Your task to perform on an android device: turn off translation in the chrome app Image 0: 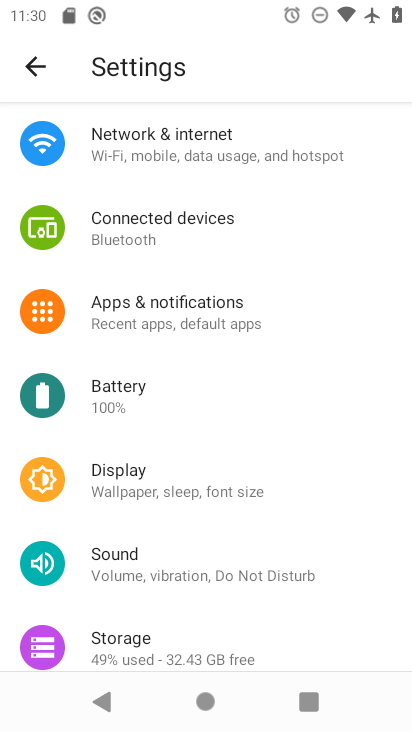
Step 0: press home button
Your task to perform on an android device: turn off translation in the chrome app Image 1: 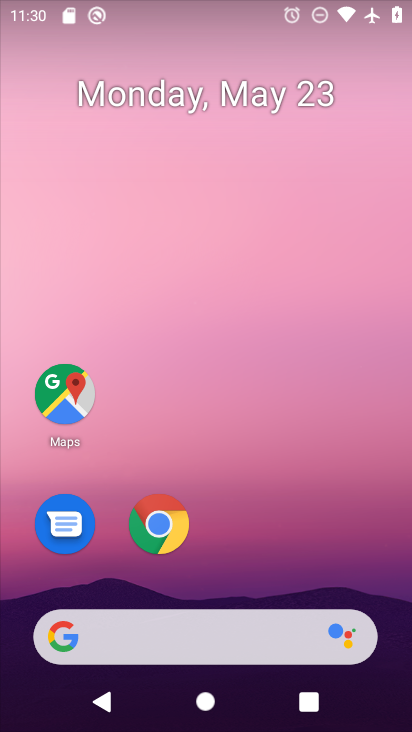
Step 1: click (174, 528)
Your task to perform on an android device: turn off translation in the chrome app Image 2: 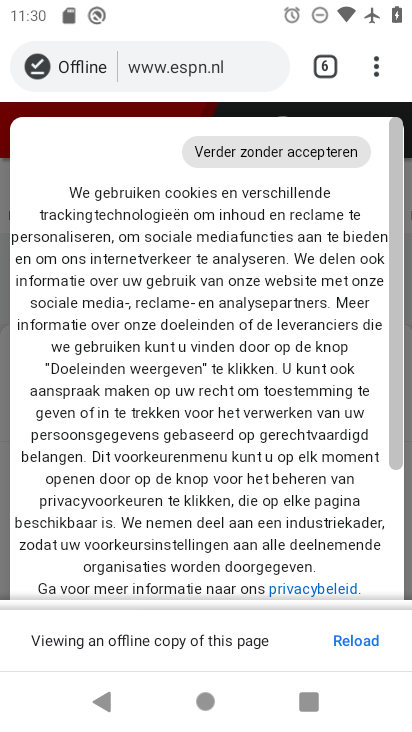
Step 2: drag from (376, 76) to (182, 521)
Your task to perform on an android device: turn off translation in the chrome app Image 3: 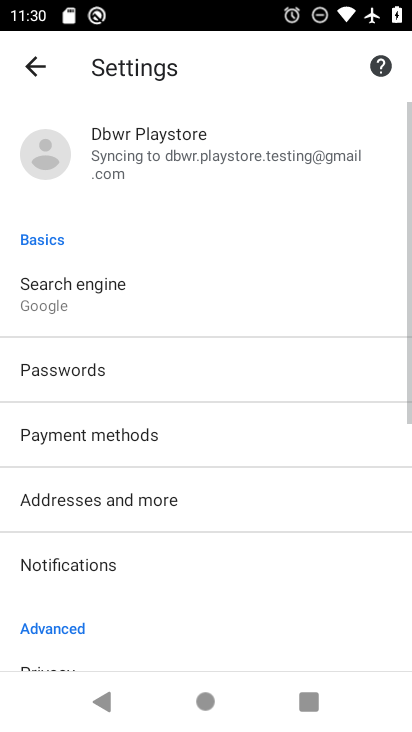
Step 3: click (189, 578)
Your task to perform on an android device: turn off translation in the chrome app Image 4: 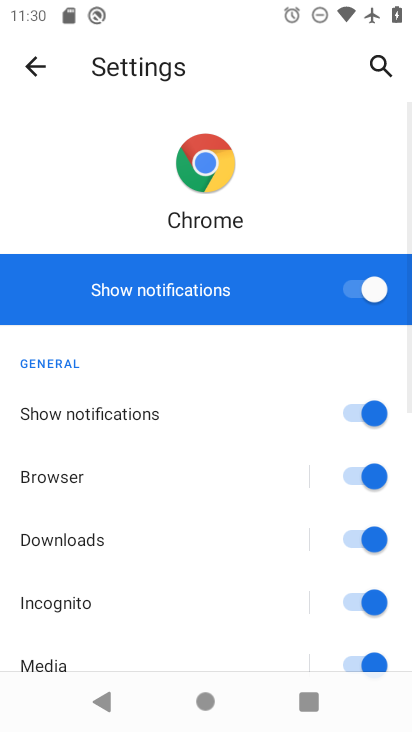
Step 4: click (20, 74)
Your task to perform on an android device: turn off translation in the chrome app Image 5: 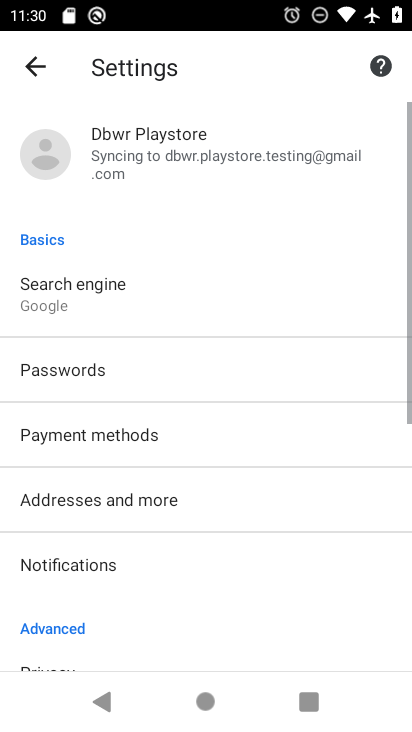
Step 5: drag from (239, 541) to (283, 202)
Your task to perform on an android device: turn off translation in the chrome app Image 6: 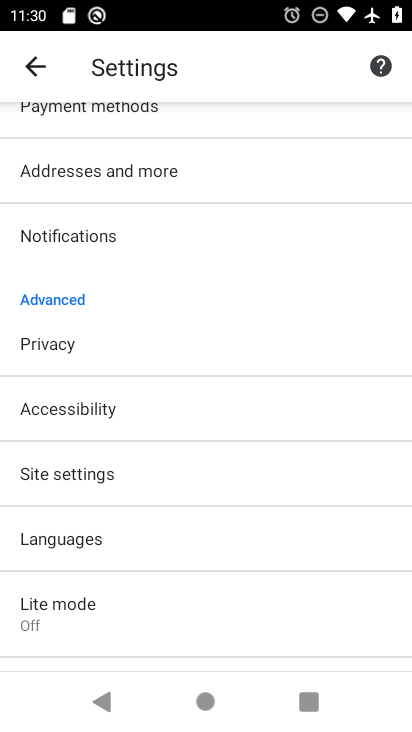
Step 6: click (137, 552)
Your task to perform on an android device: turn off translation in the chrome app Image 7: 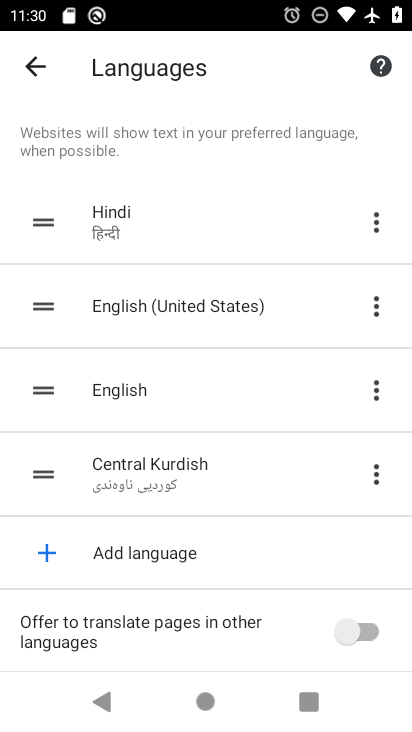
Step 7: task complete